Your task to perform on an android device: Open maps Image 0: 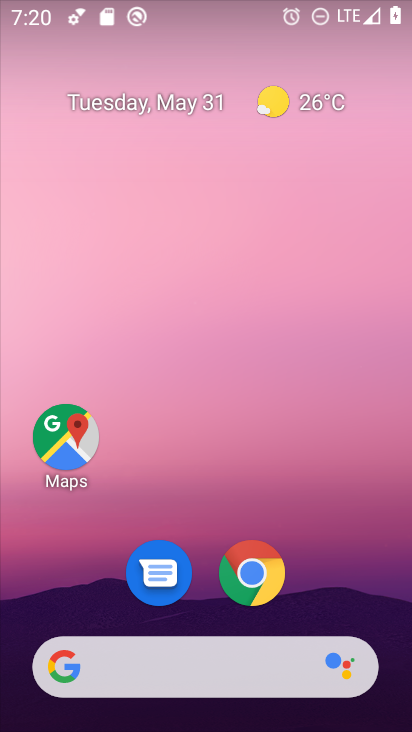
Step 0: drag from (391, 637) to (343, 99)
Your task to perform on an android device: Open maps Image 1: 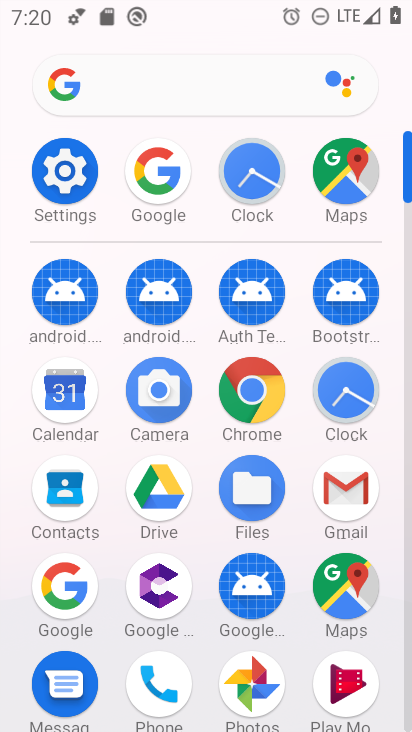
Step 1: click (340, 592)
Your task to perform on an android device: Open maps Image 2: 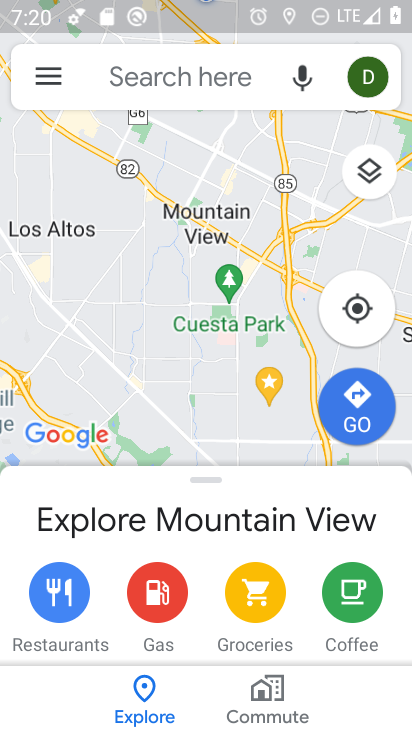
Step 2: task complete